Your task to perform on an android device: uninstall "Reddit" Image 0: 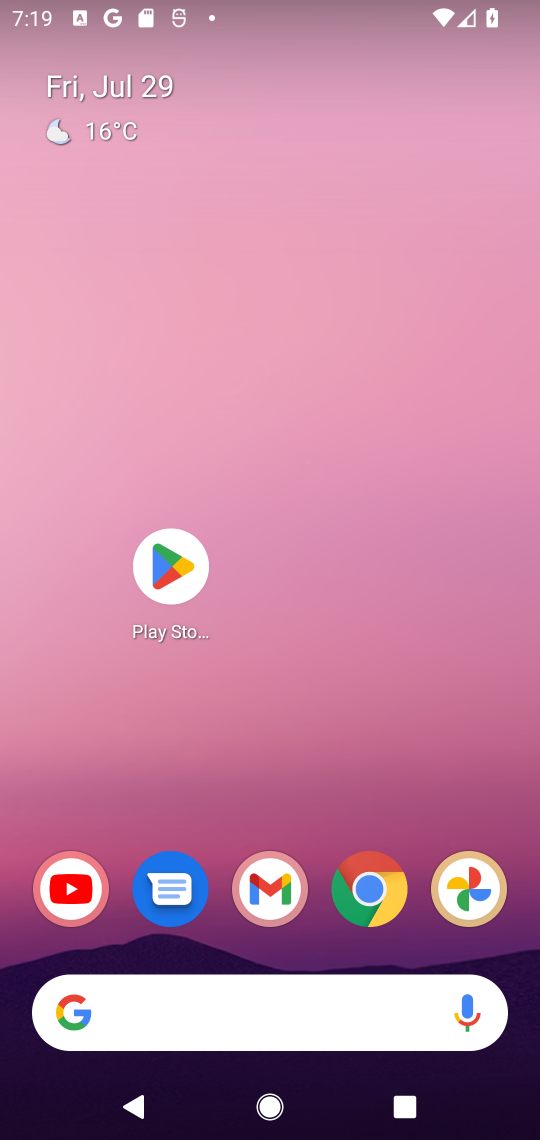
Step 0: press home button
Your task to perform on an android device: uninstall "Reddit" Image 1: 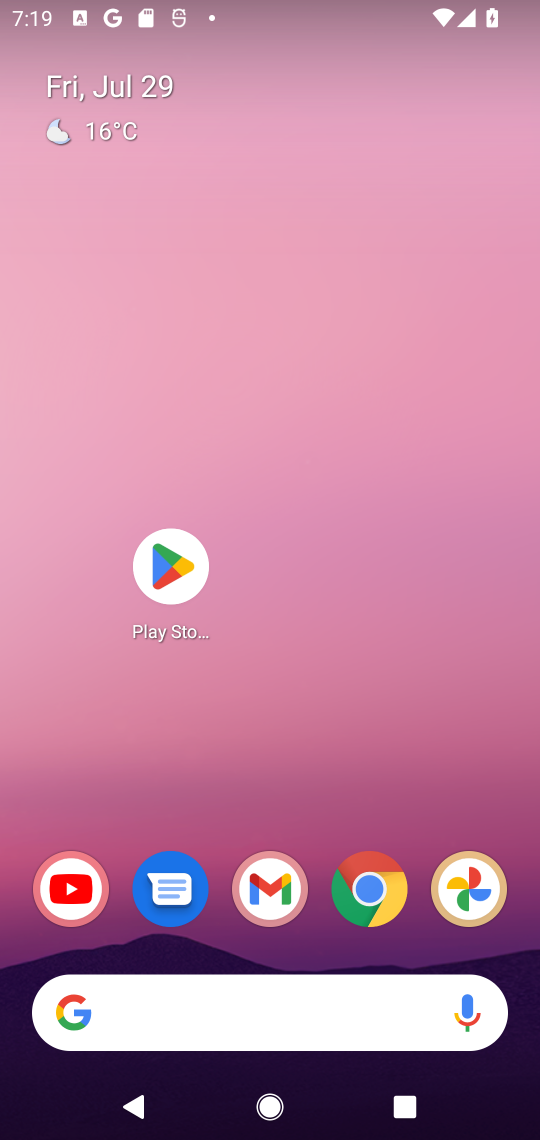
Step 1: click (162, 575)
Your task to perform on an android device: uninstall "Reddit" Image 2: 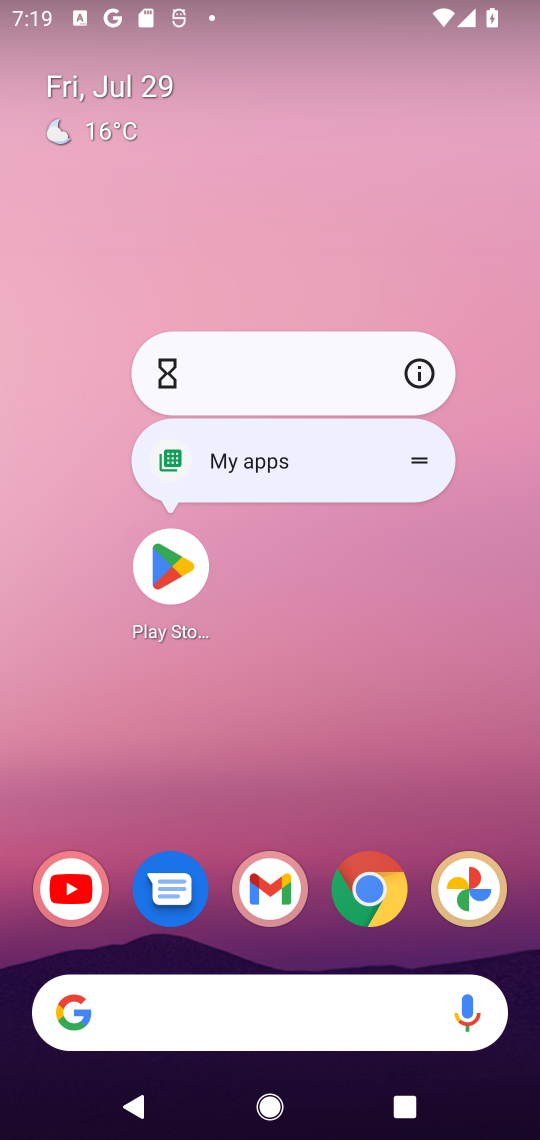
Step 2: click (155, 560)
Your task to perform on an android device: uninstall "Reddit" Image 3: 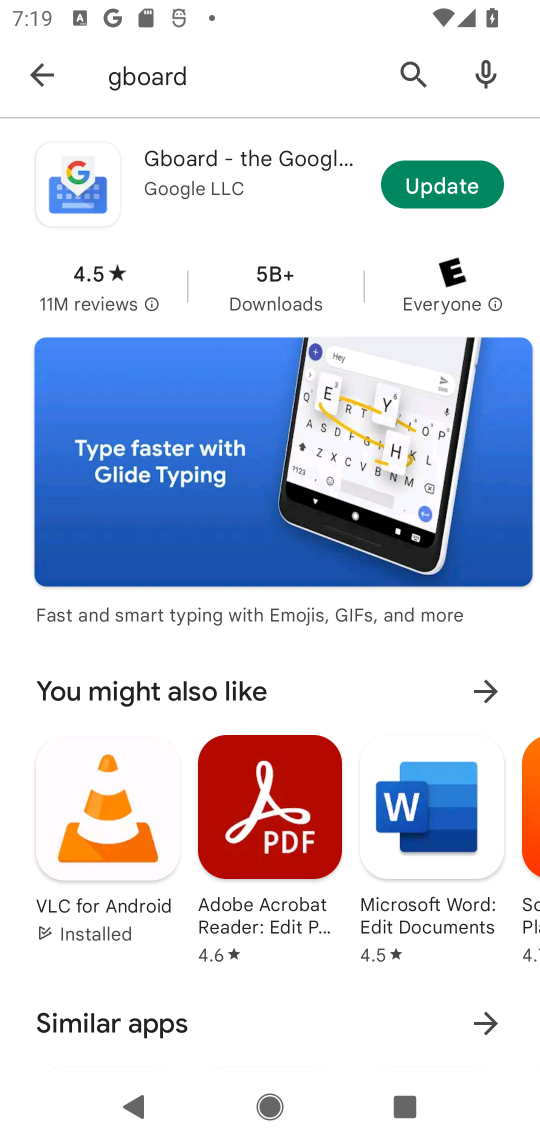
Step 3: click (408, 69)
Your task to perform on an android device: uninstall "Reddit" Image 4: 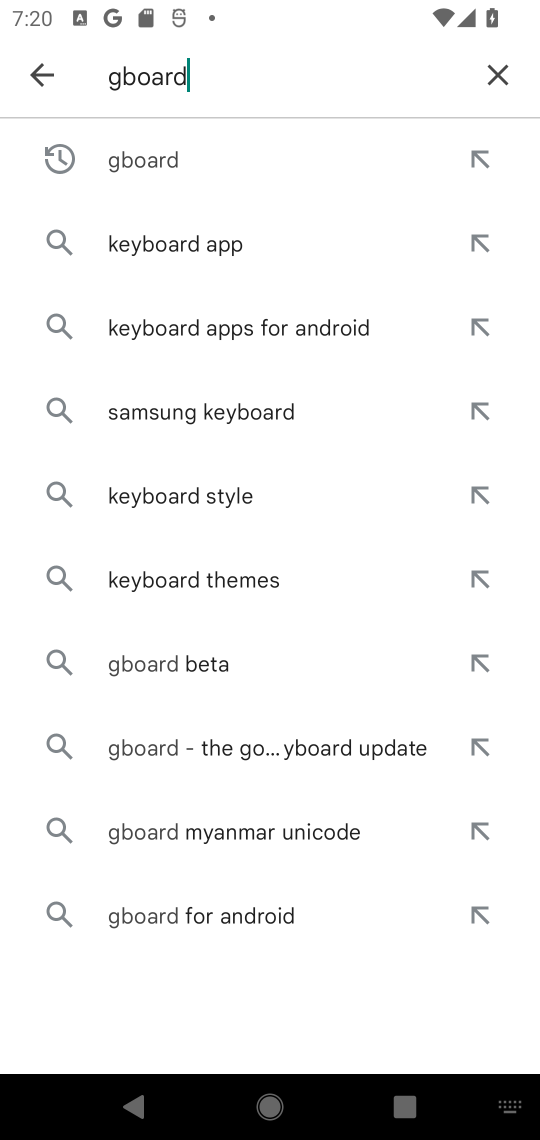
Step 4: click (498, 69)
Your task to perform on an android device: uninstall "Reddit" Image 5: 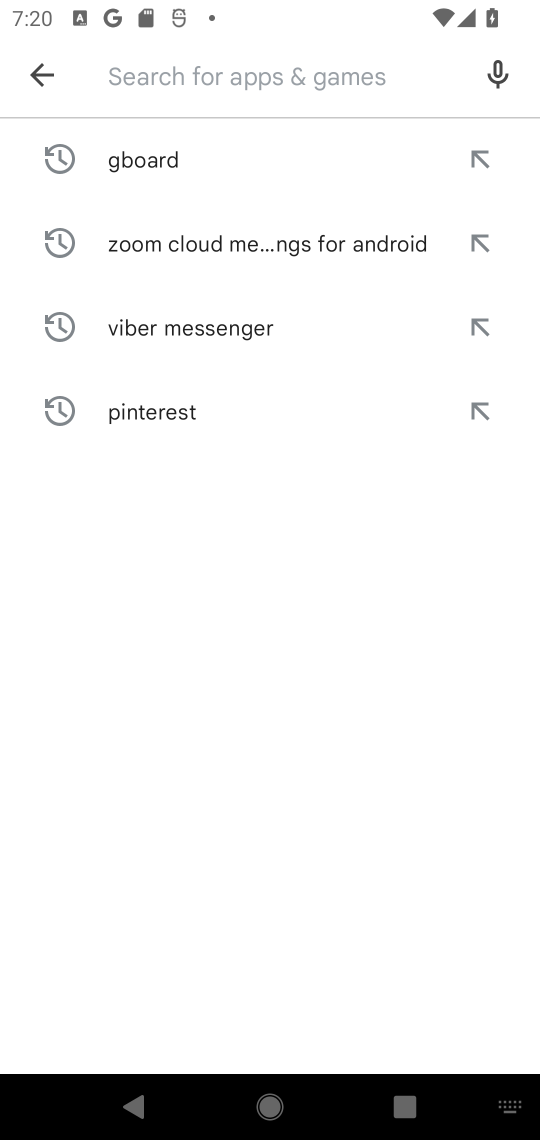
Step 5: type "Reddit"
Your task to perform on an android device: uninstall "Reddit" Image 6: 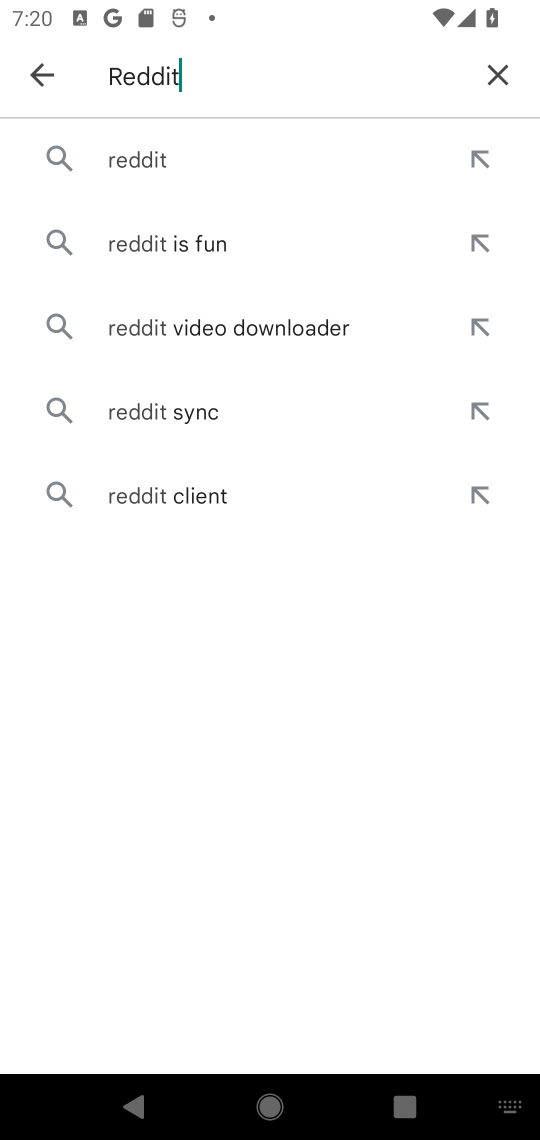
Step 6: click (166, 159)
Your task to perform on an android device: uninstall "Reddit" Image 7: 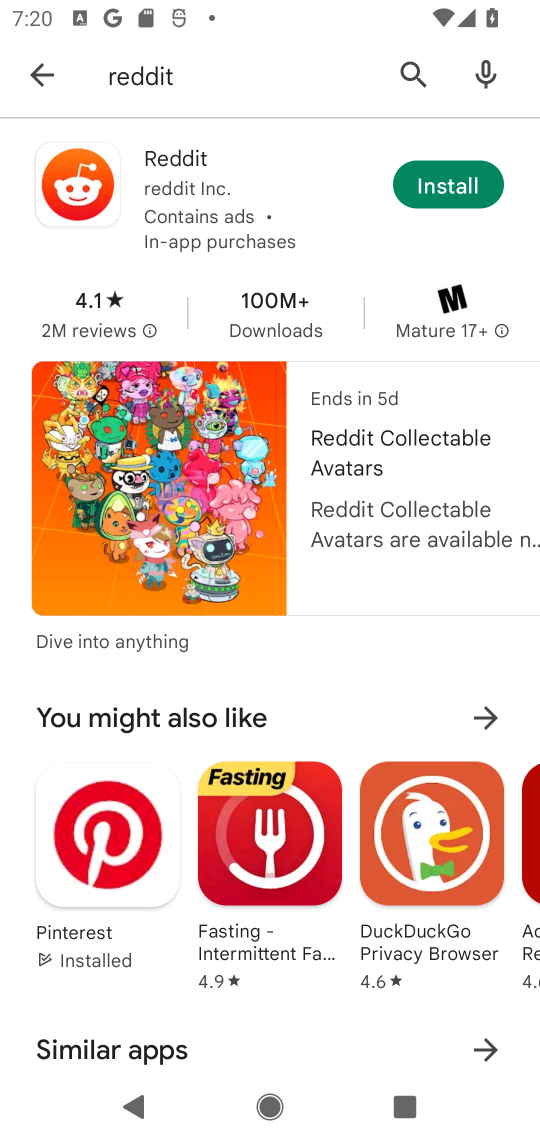
Step 7: task complete